Your task to perform on an android device: move an email to a new category in the gmail app Image 0: 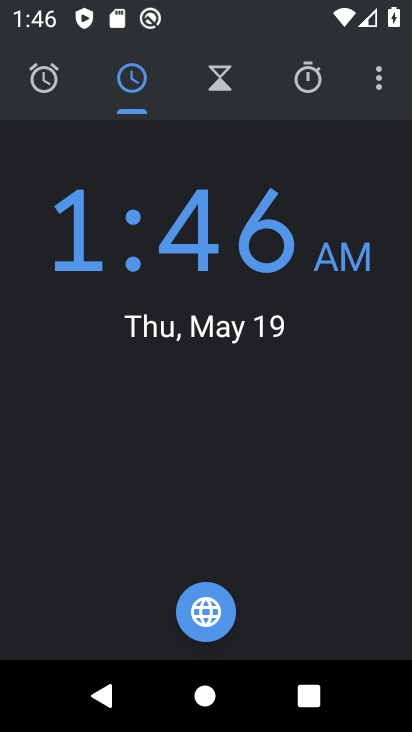
Step 0: press home button
Your task to perform on an android device: move an email to a new category in the gmail app Image 1: 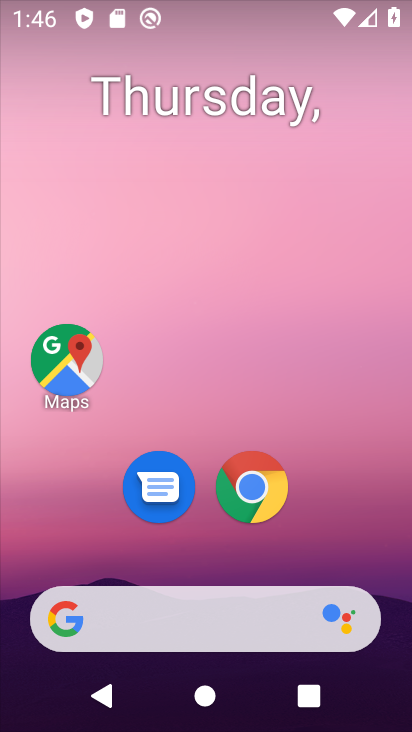
Step 1: drag from (279, 580) to (256, 98)
Your task to perform on an android device: move an email to a new category in the gmail app Image 2: 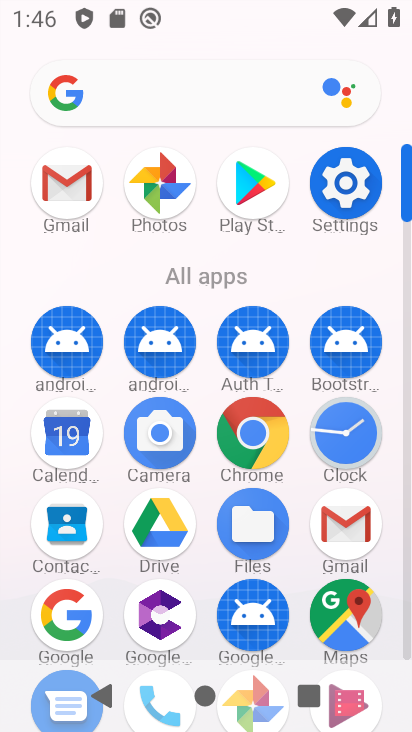
Step 2: click (350, 511)
Your task to perform on an android device: move an email to a new category in the gmail app Image 3: 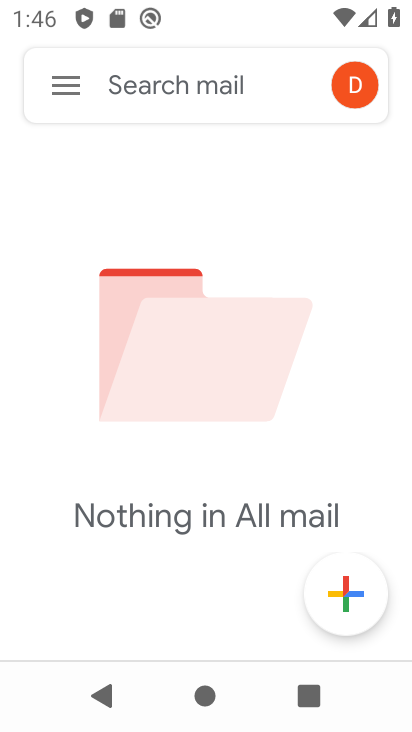
Step 3: drag from (207, 305) to (150, 620)
Your task to perform on an android device: move an email to a new category in the gmail app Image 4: 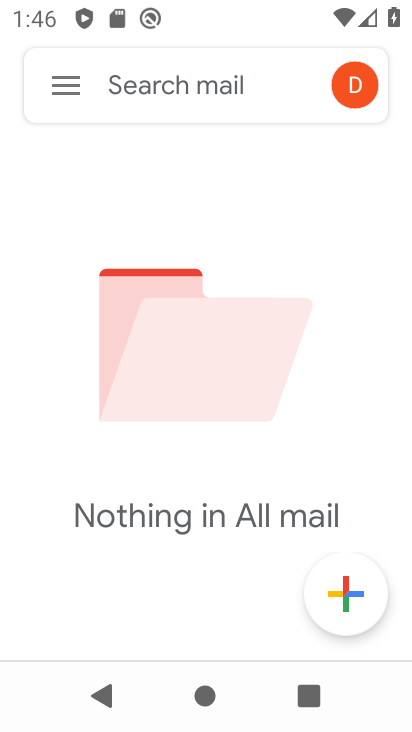
Step 4: click (66, 73)
Your task to perform on an android device: move an email to a new category in the gmail app Image 5: 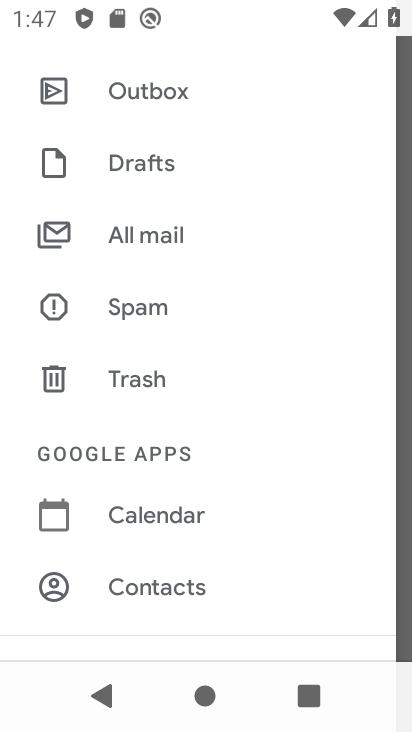
Step 5: task complete